Your task to perform on an android device: toggle translation in the chrome app Image 0: 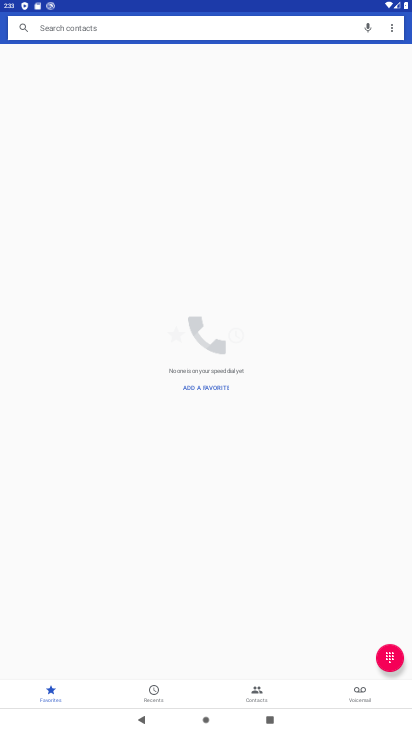
Step 0: press home button
Your task to perform on an android device: toggle translation in the chrome app Image 1: 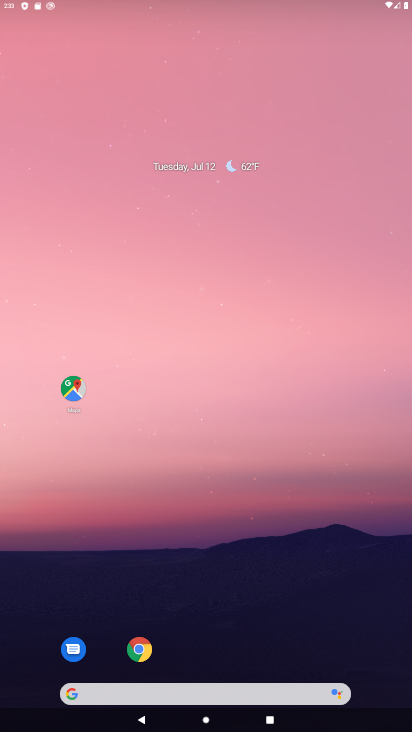
Step 1: drag from (187, 669) to (294, 53)
Your task to perform on an android device: toggle translation in the chrome app Image 2: 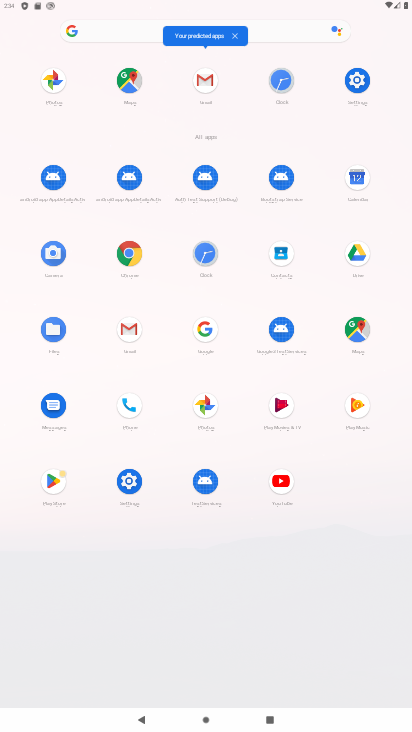
Step 2: click (128, 262)
Your task to perform on an android device: toggle translation in the chrome app Image 3: 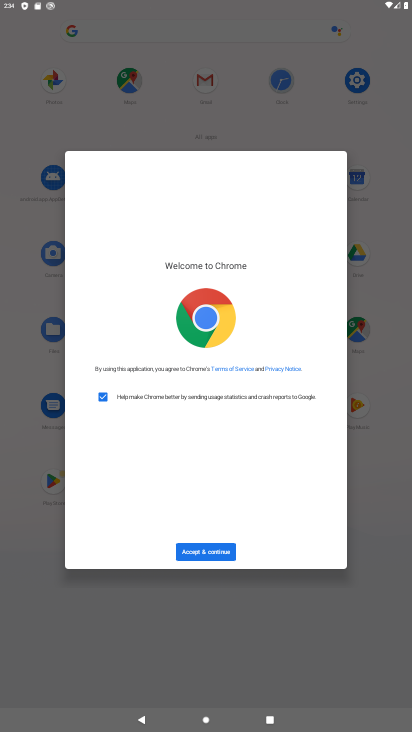
Step 3: click (212, 553)
Your task to perform on an android device: toggle translation in the chrome app Image 4: 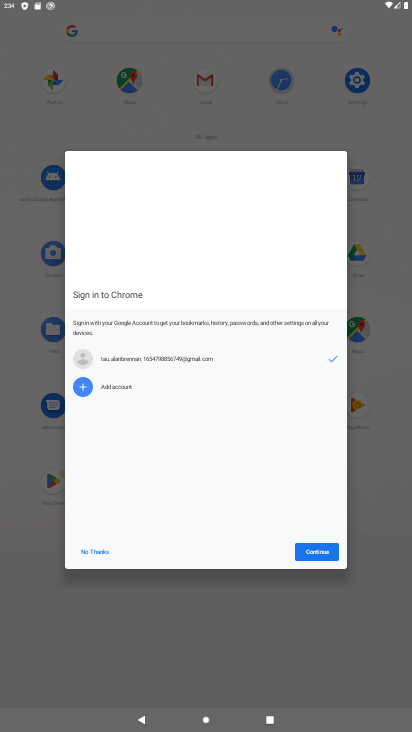
Step 4: click (320, 549)
Your task to perform on an android device: toggle translation in the chrome app Image 5: 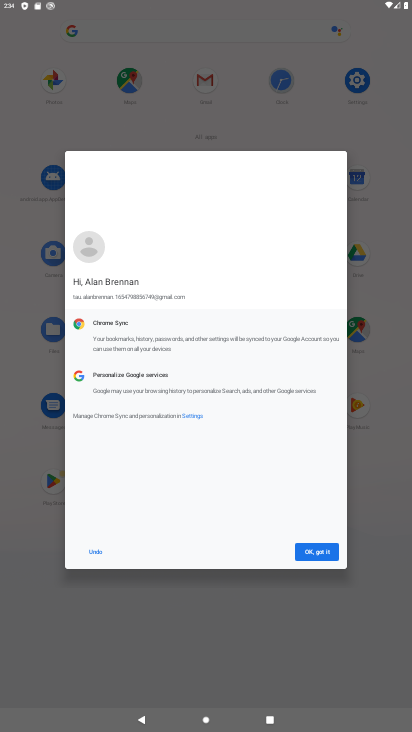
Step 5: click (320, 547)
Your task to perform on an android device: toggle translation in the chrome app Image 6: 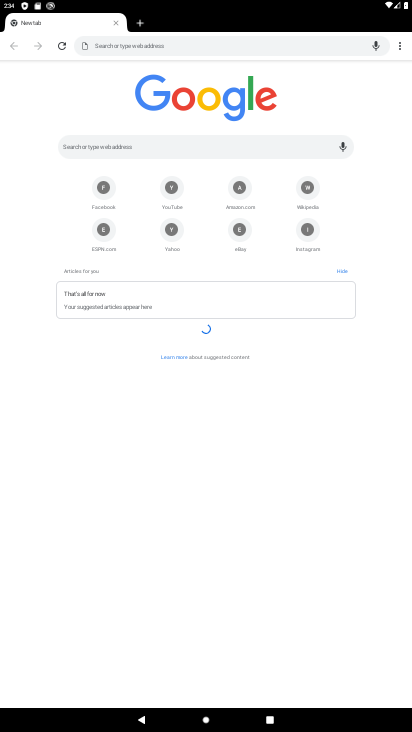
Step 6: drag from (398, 45) to (315, 203)
Your task to perform on an android device: toggle translation in the chrome app Image 7: 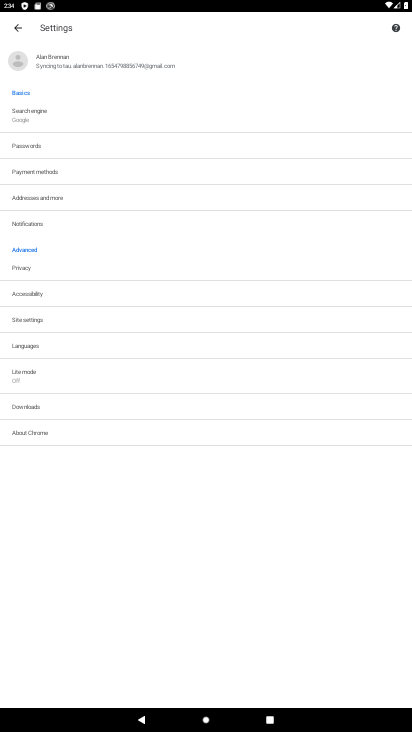
Step 7: click (86, 348)
Your task to perform on an android device: toggle translation in the chrome app Image 8: 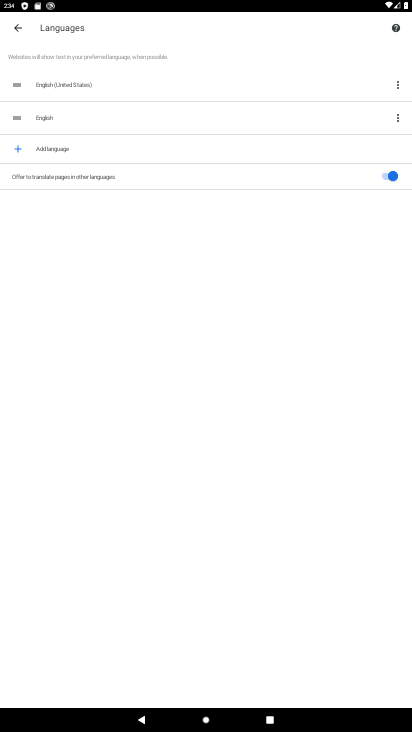
Step 8: click (386, 172)
Your task to perform on an android device: toggle translation in the chrome app Image 9: 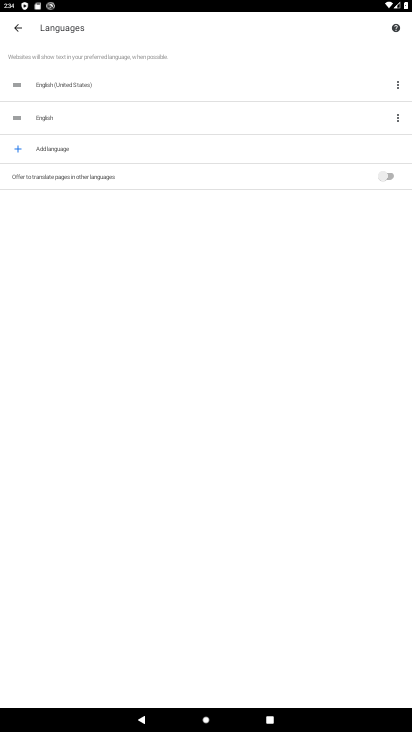
Step 9: task complete